Your task to perform on an android device: Find coffee shops on Maps Image 0: 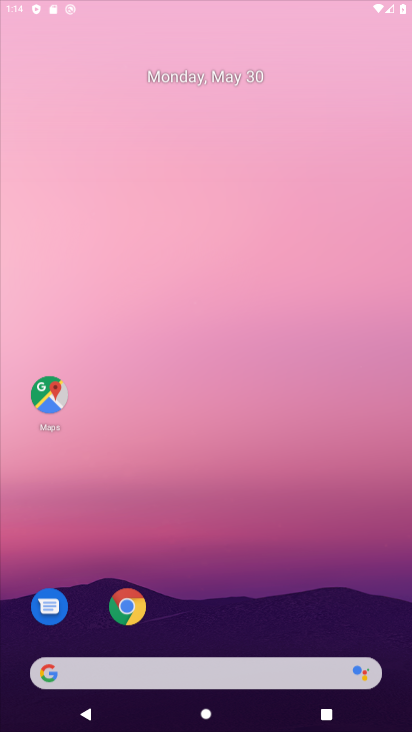
Step 0: drag from (299, 532) to (287, 265)
Your task to perform on an android device: Find coffee shops on Maps Image 1: 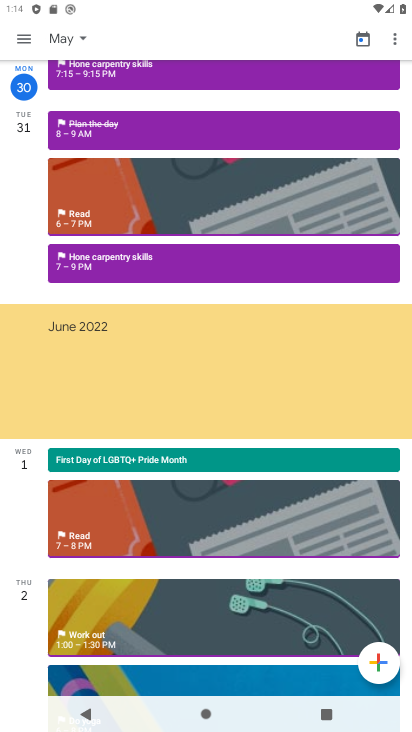
Step 1: press home button
Your task to perform on an android device: Find coffee shops on Maps Image 2: 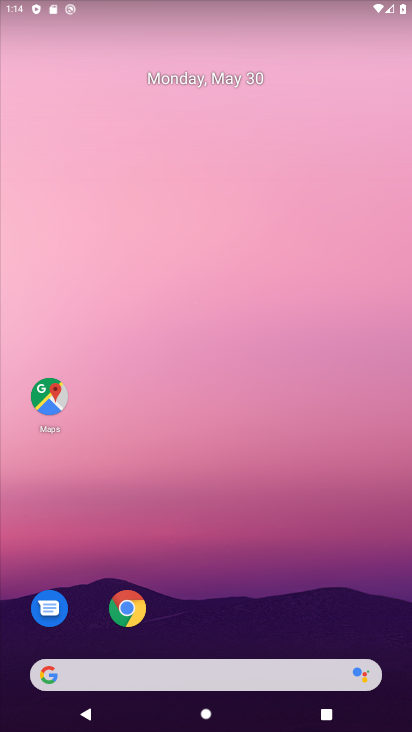
Step 2: drag from (262, 615) to (244, 212)
Your task to perform on an android device: Find coffee shops on Maps Image 3: 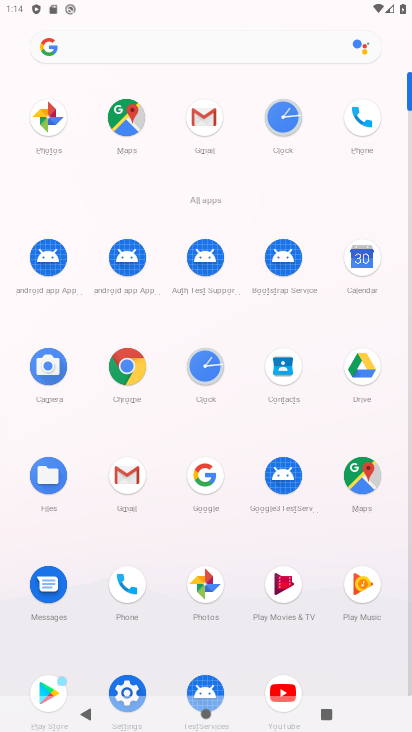
Step 3: click (120, 112)
Your task to perform on an android device: Find coffee shops on Maps Image 4: 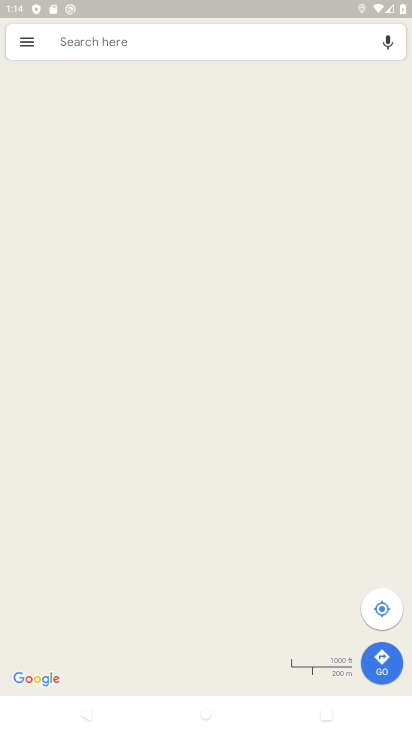
Step 4: click (164, 35)
Your task to perform on an android device: Find coffee shops on Maps Image 5: 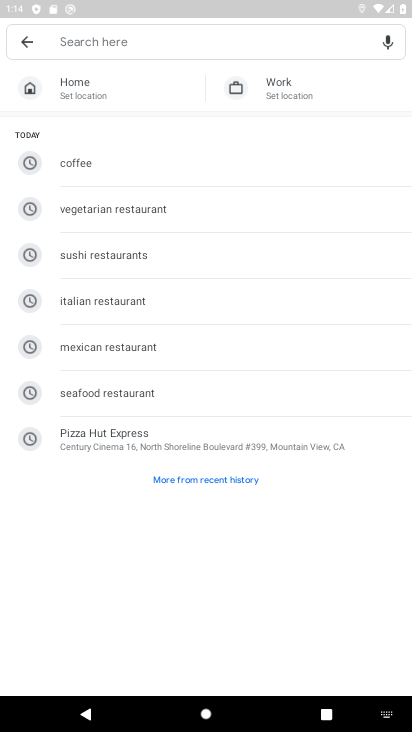
Step 5: click (121, 163)
Your task to perform on an android device: Find coffee shops on Maps Image 6: 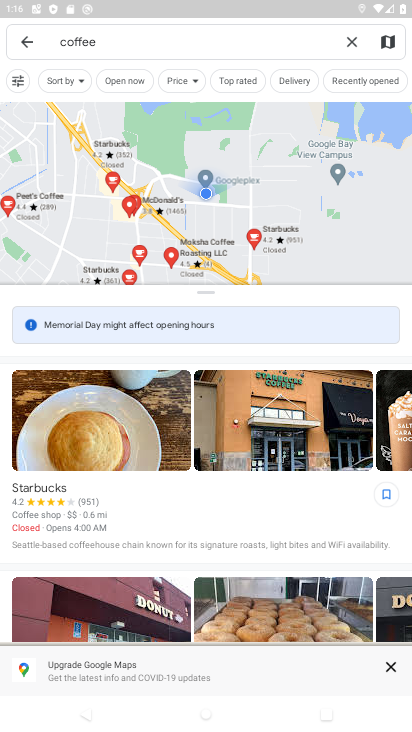
Step 6: task complete